Your task to perform on an android device: Open Chrome and go to settings Image 0: 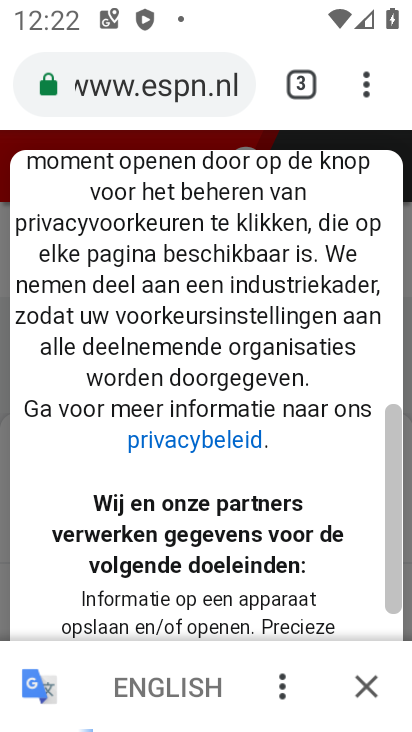
Step 0: click (378, 677)
Your task to perform on an android device: Open Chrome and go to settings Image 1: 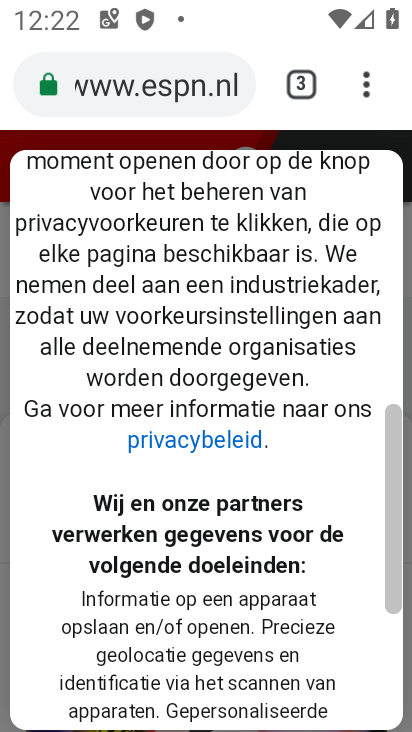
Step 1: click (355, 80)
Your task to perform on an android device: Open Chrome and go to settings Image 2: 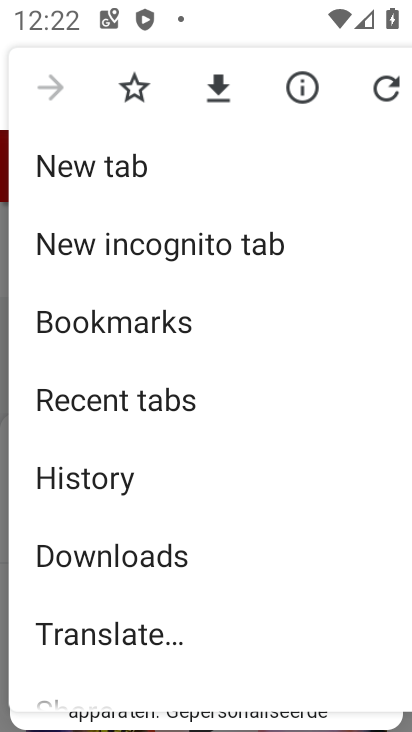
Step 2: drag from (147, 594) to (184, 197)
Your task to perform on an android device: Open Chrome and go to settings Image 3: 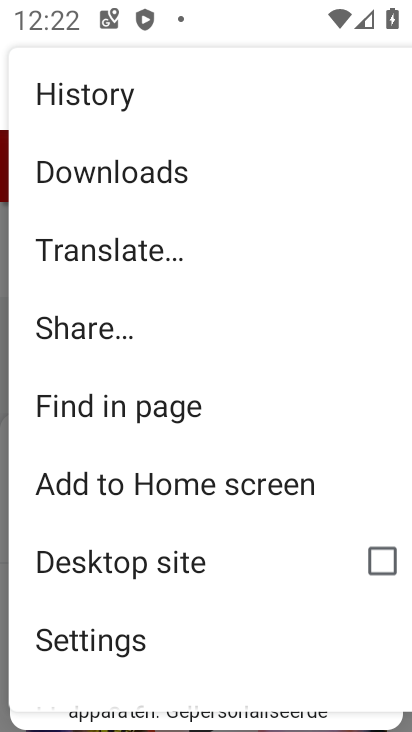
Step 3: click (142, 631)
Your task to perform on an android device: Open Chrome and go to settings Image 4: 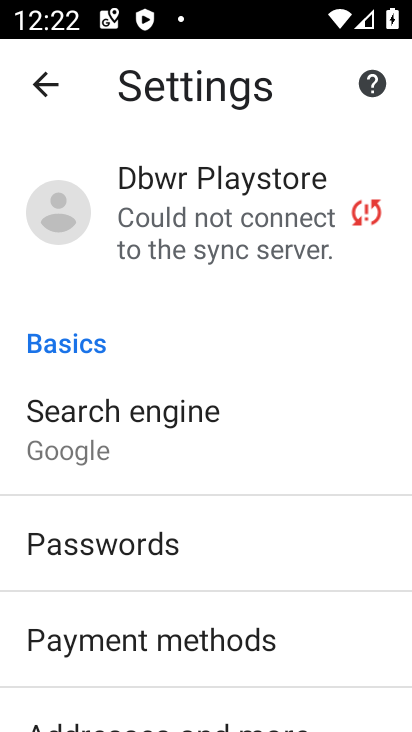
Step 4: task complete